Your task to perform on an android device: Go to Google Image 0: 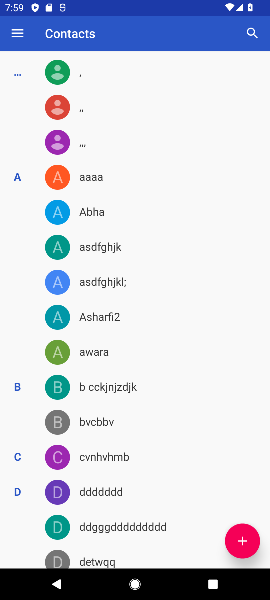
Step 0: press home button
Your task to perform on an android device: Go to Google Image 1: 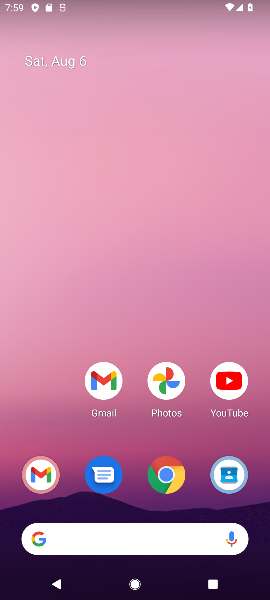
Step 1: drag from (125, 442) to (133, 225)
Your task to perform on an android device: Go to Google Image 2: 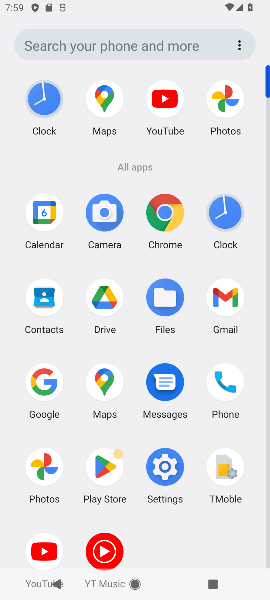
Step 2: click (47, 407)
Your task to perform on an android device: Go to Google Image 3: 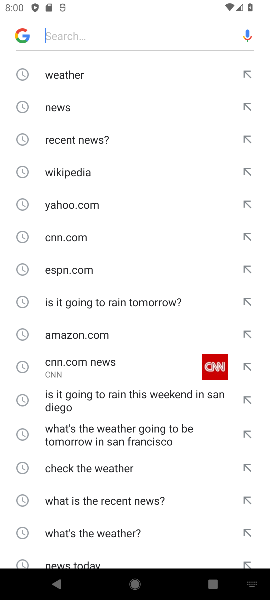
Step 3: task complete